Your task to perform on an android device: manage bookmarks in the chrome app Image 0: 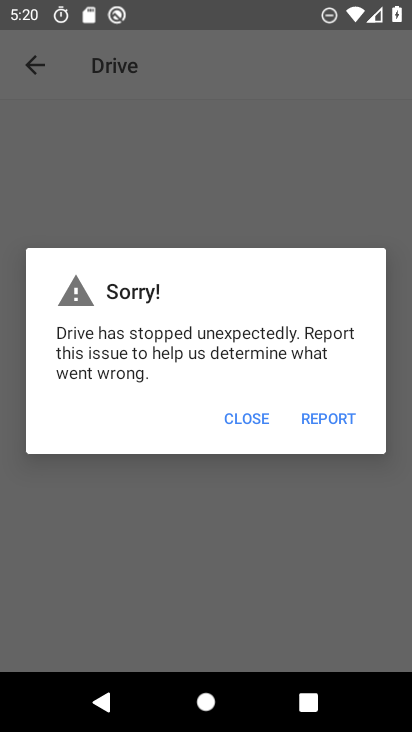
Step 0: press home button
Your task to perform on an android device: manage bookmarks in the chrome app Image 1: 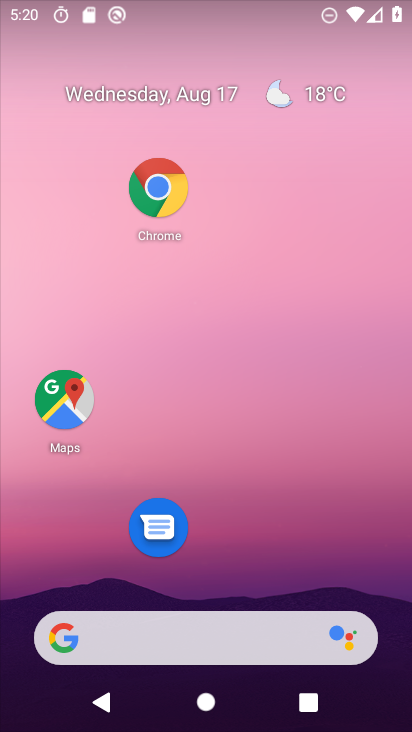
Step 1: click (155, 184)
Your task to perform on an android device: manage bookmarks in the chrome app Image 2: 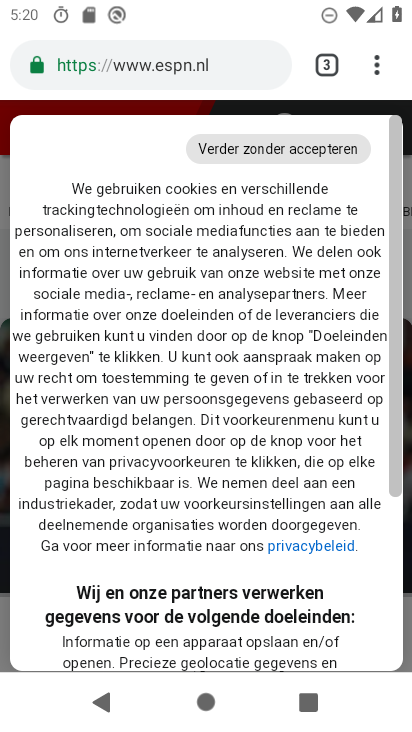
Step 2: click (389, 61)
Your task to perform on an android device: manage bookmarks in the chrome app Image 3: 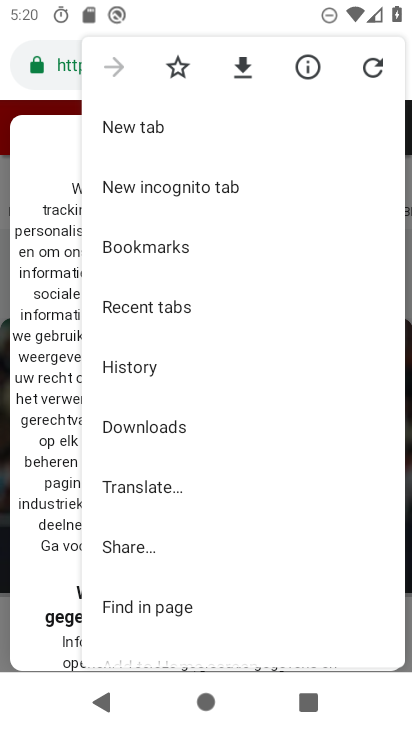
Step 3: click (191, 239)
Your task to perform on an android device: manage bookmarks in the chrome app Image 4: 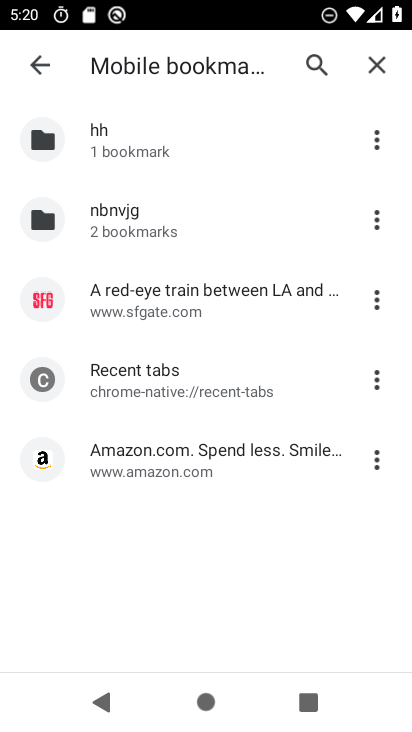
Step 4: click (385, 214)
Your task to perform on an android device: manage bookmarks in the chrome app Image 5: 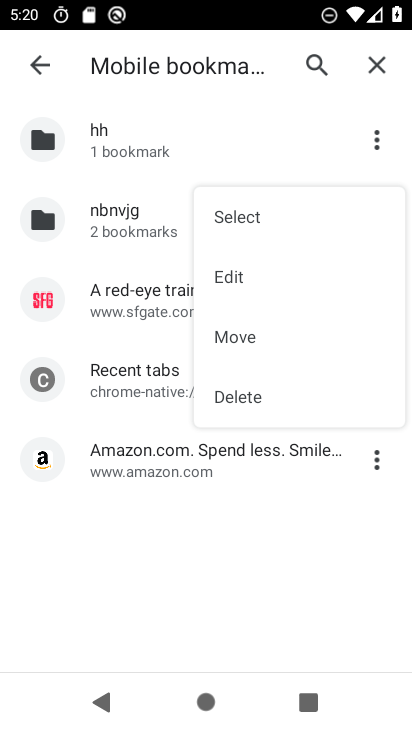
Step 5: click (136, 577)
Your task to perform on an android device: manage bookmarks in the chrome app Image 6: 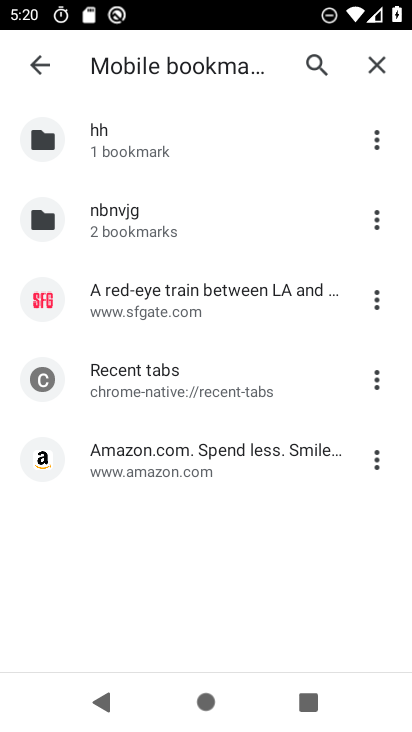
Step 6: click (382, 372)
Your task to perform on an android device: manage bookmarks in the chrome app Image 7: 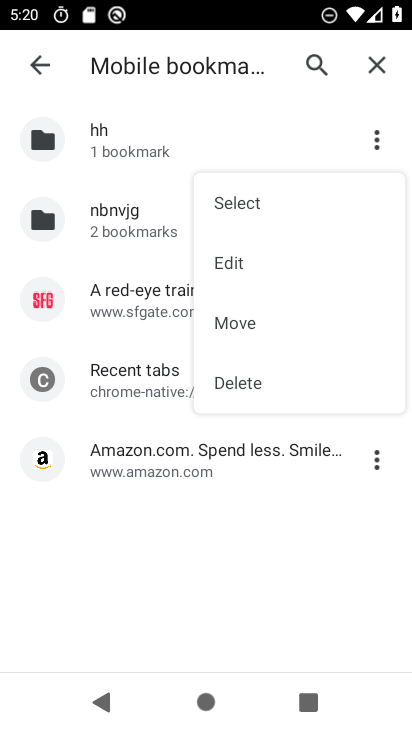
Step 7: click (249, 385)
Your task to perform on an android device: manage bookmarks in the chrome app Image 8: 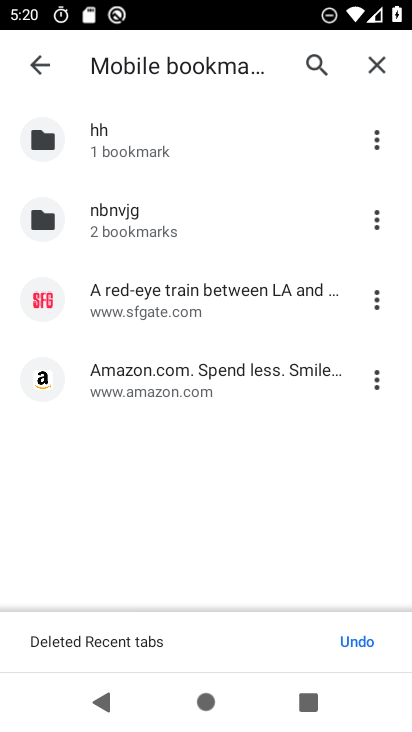
Step 8: task complete